Your task to perform on an android device: What's the weather today? Image 0: 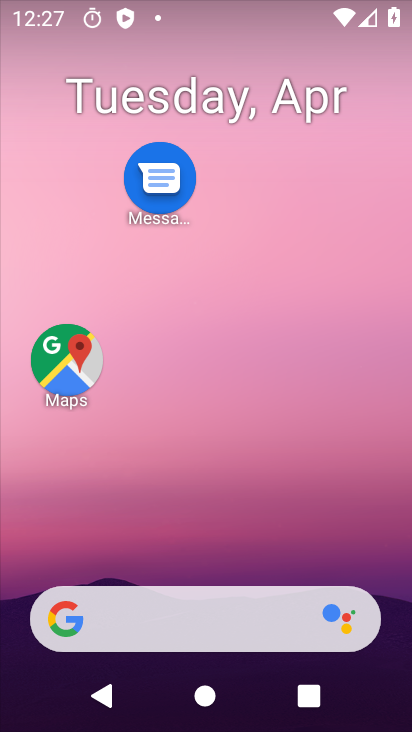
Step 0: drag from (207, 718) to (189, 0)
Your task to perform on an android device: What's the weather today? Image 1: 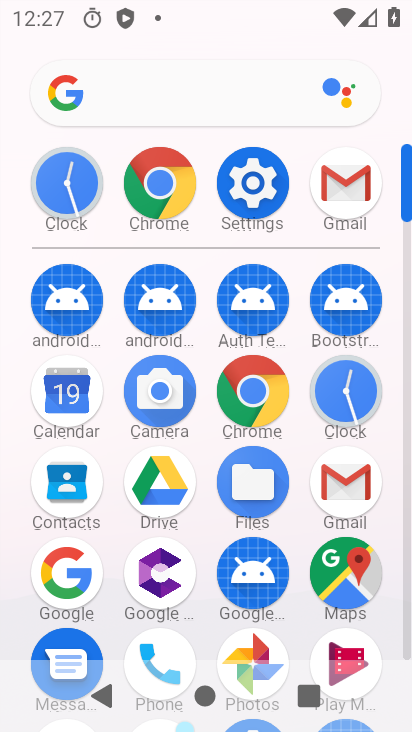
Step 1: click (66, 572)
Your task to perform on an android device: What's the weather today? Image 2: 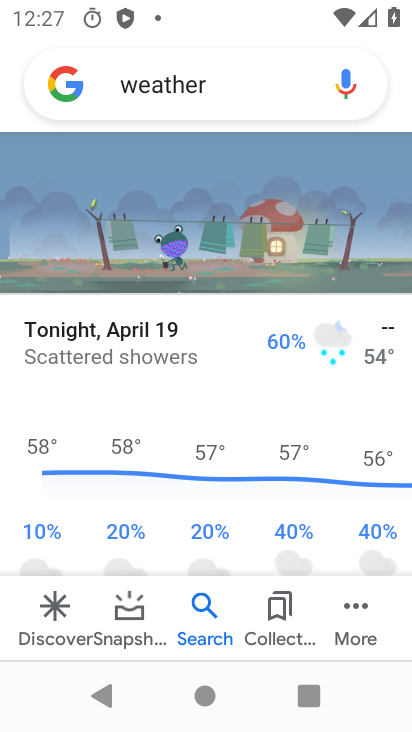
Step 2: task complete